Your task to perform on an android device: Show me the alarms in the clock app Image 0: 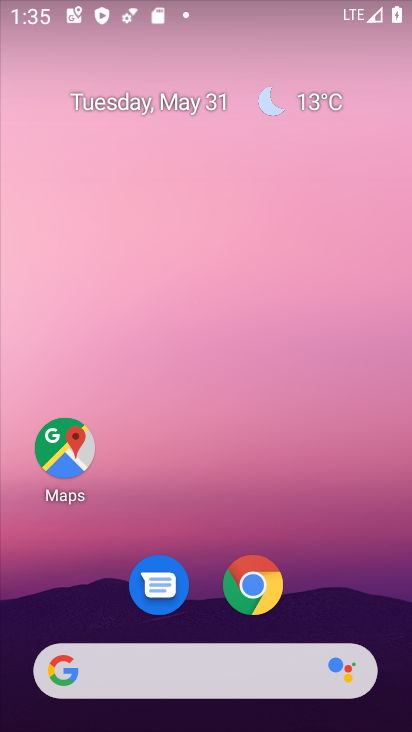
Step 0: drag from (255, 480) to (216, 10)
Your task to perform on an android device: Show me the alarms in the clock app Image 1: 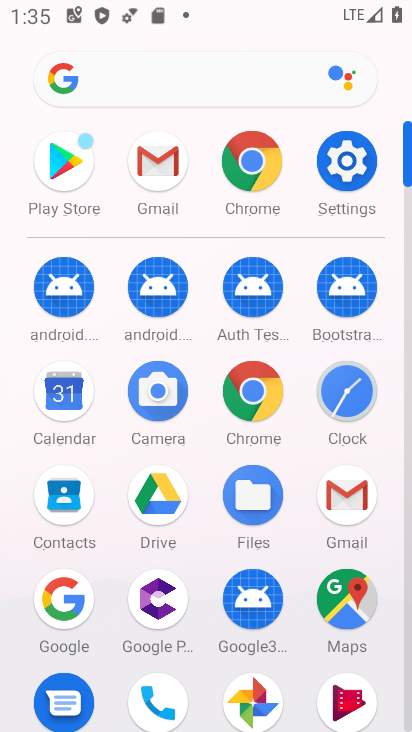
Step 1: click (343, 389)
Your task to perform on an android device: Show me the alarms in the clock app Image 2: 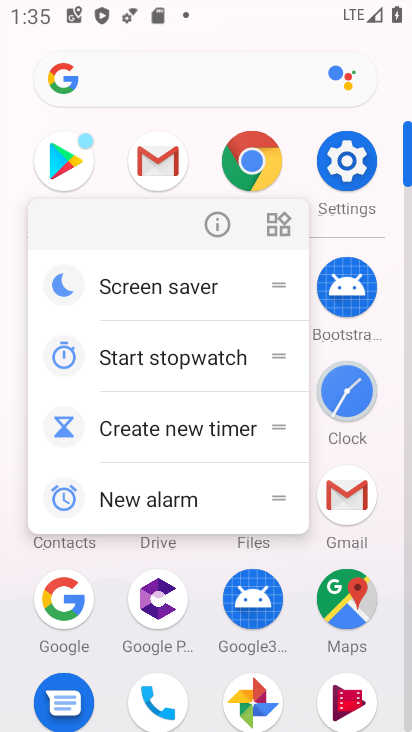
Step 2: click (338, 399)
Your task to perform on an android device: Show me the alarms in the clock app Image 3: 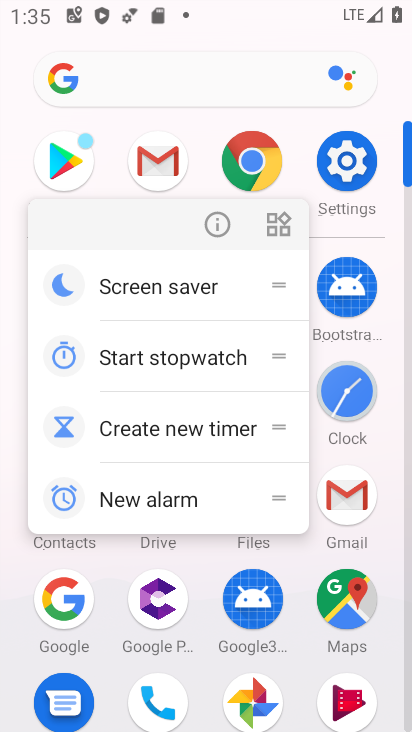
Step 3: click (351, 393)
Your task to perform on an android device: Show me the alarms in the clock app Image 4: 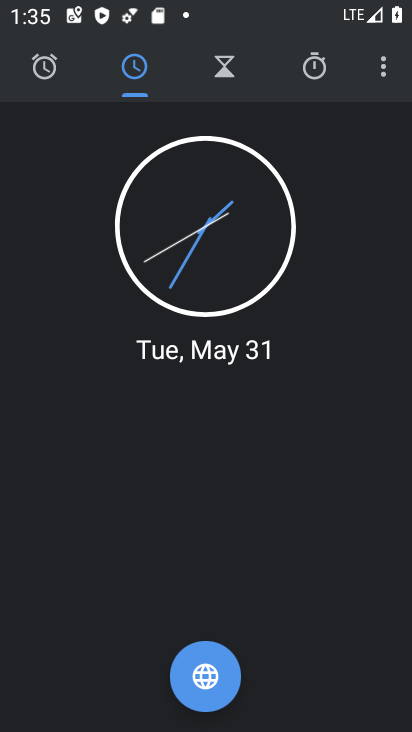
Step 4: click (49, 62)
Your task to perform on an android device: Show me the alarms in the clock app Image 5: 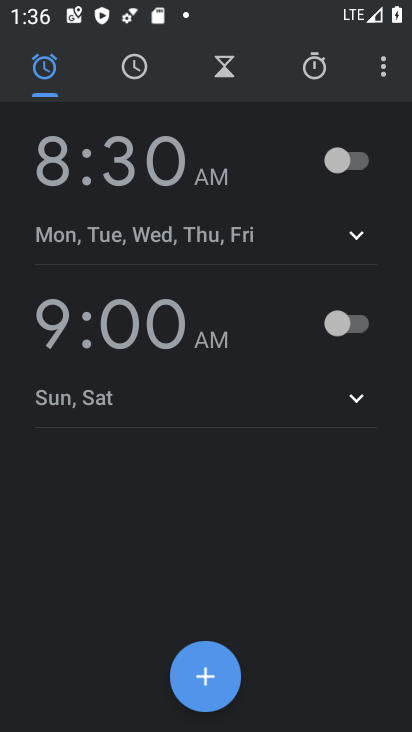
Step 5: task complete